Your task to perform on an android device: Open privacy settings Image 0: 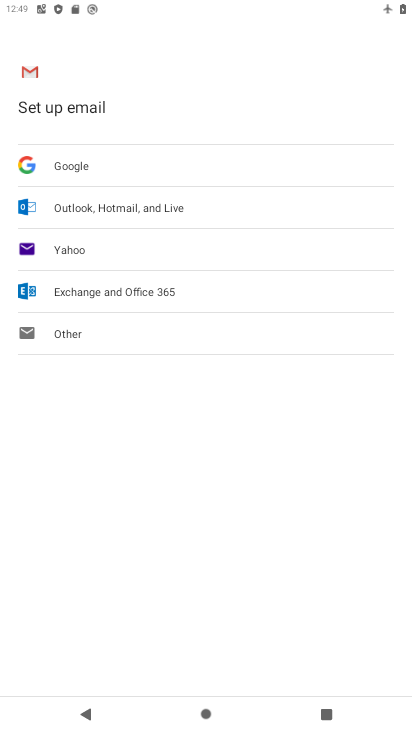
Step 0: press home button
Your task to perform on an android device: Open privacy settings Image 1: 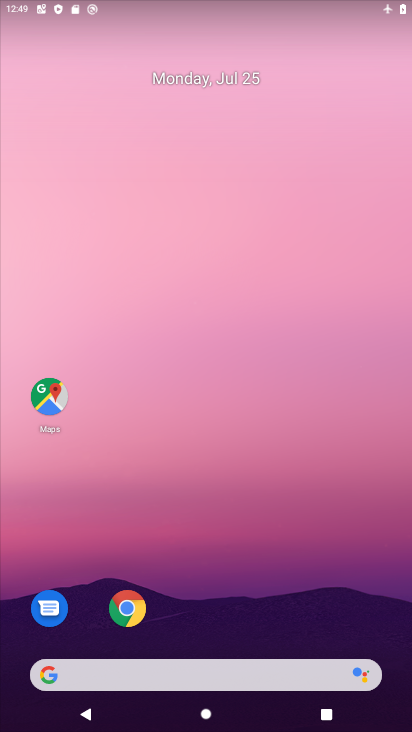
Step 1: drag from (250, 643) to (247, 16)
Your task to perform on an android device: Open privacy settings Image 2: 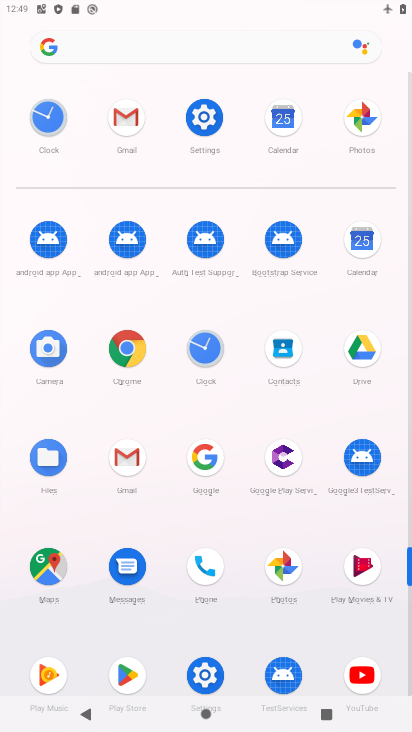
Step 2: click (200, 116)
Your task to perform on an android device: Open privacy settings Image 3: 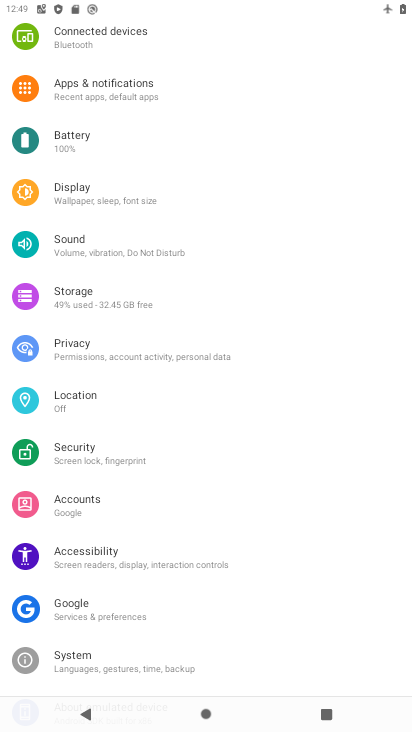
Step 3: click (66, 357)
Your task to perform on an android device: Open privacy settings Image 4: 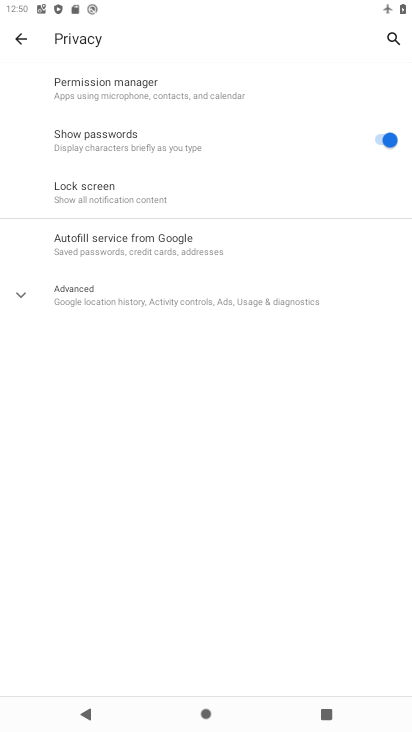
Step 4: task complete